Your task to perform on an android device: Open ESPN.com Image 0: 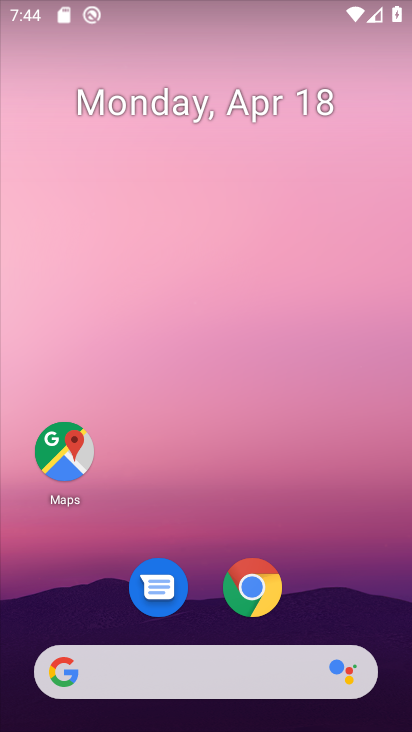
Step 0: click (264, 584)
Your task to perform on an android device: Open ESPN.com Image 1: 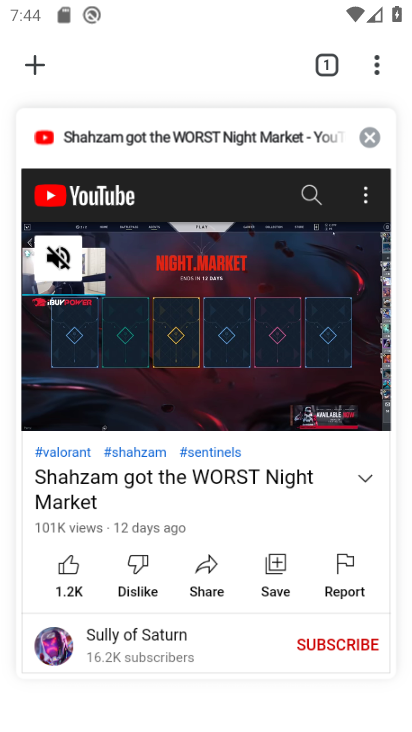
Step 1: click (34, 74)
Your task to perform on an android device: Open ESPN.com Image 2: 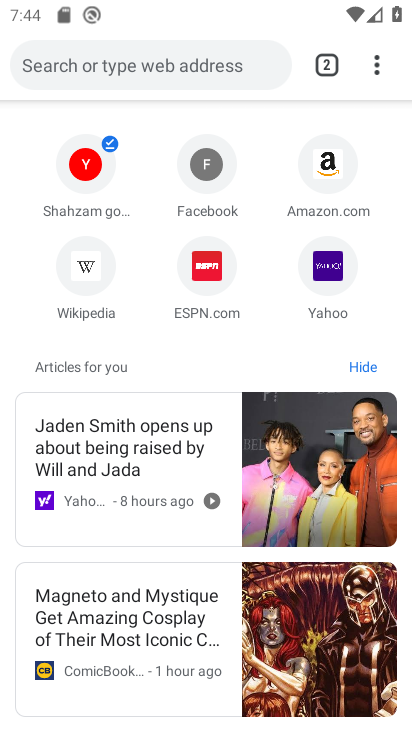
Step 2: click (198, 282)
Your task to perform on an android device: Open ESPN.com Image 3: 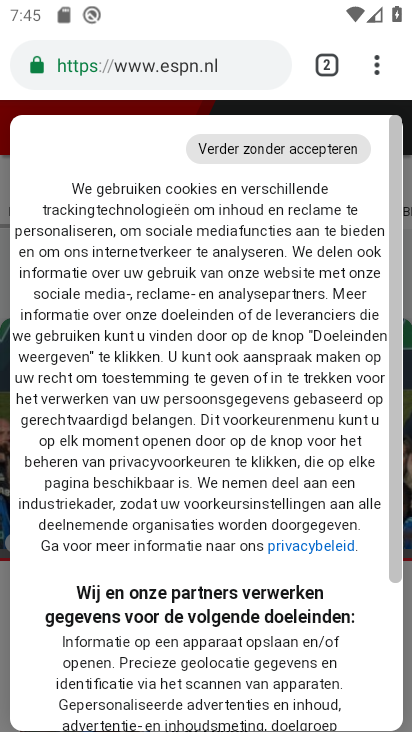
Step 3: task complete